Your task to perform on an android device: empty trash in the gmail app Image 0: 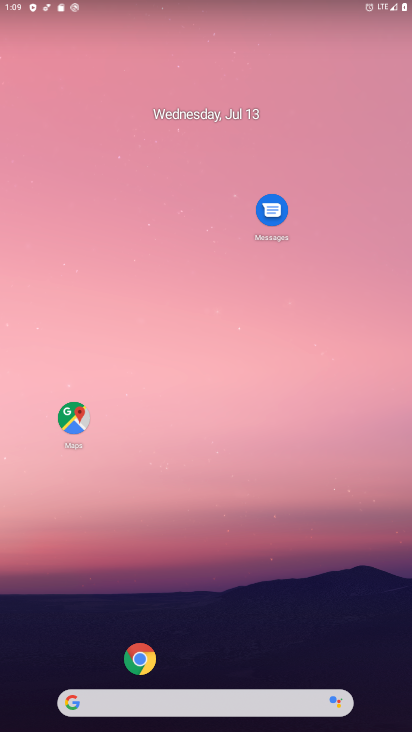
Step 0: drag from (43, 669) to (381, 193)
Your task to perform on an android device: empty trash in the gmail app Image 1: 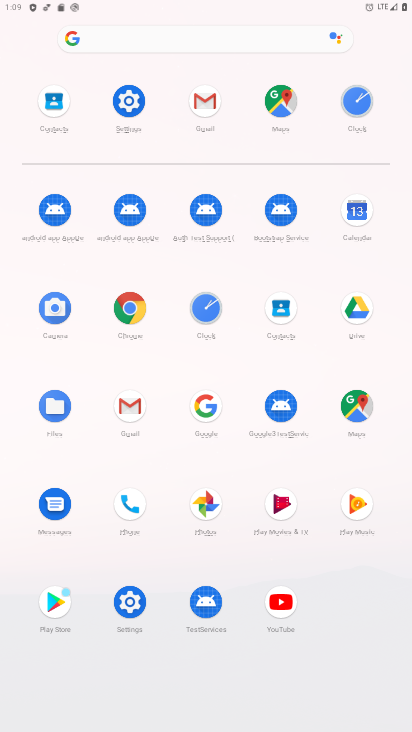
Step 1: click (132, 406)
Your task to perform on an android device: empty trash in the gmail app Image 2: 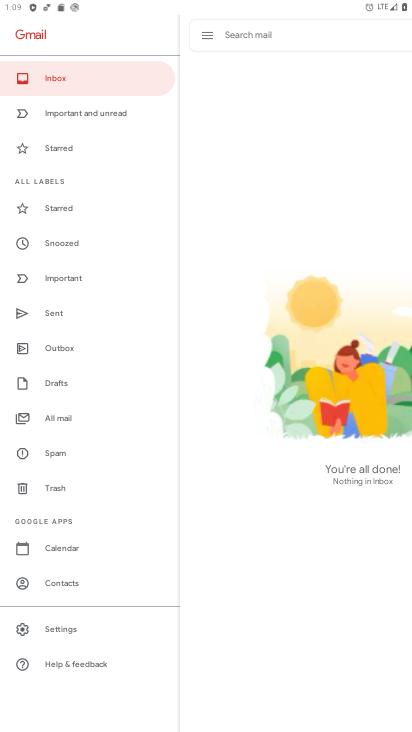
Step 2: click (80, 489)
Your task to perform on an android device: empty trash in the gmail app Image 3: 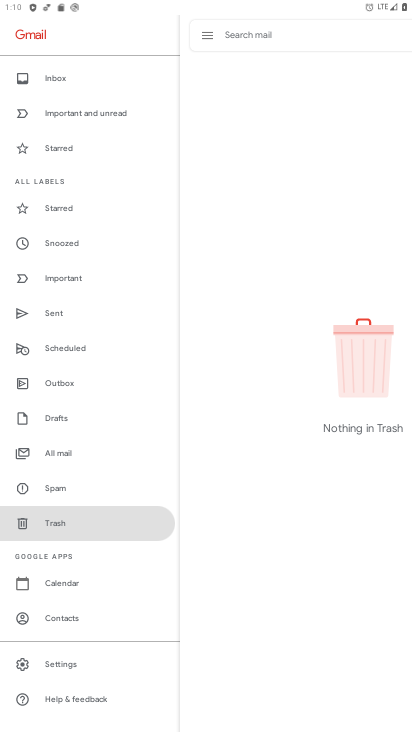
Step 3: task complete